Your task to perform on an android device: Open wifi settings Image 0: 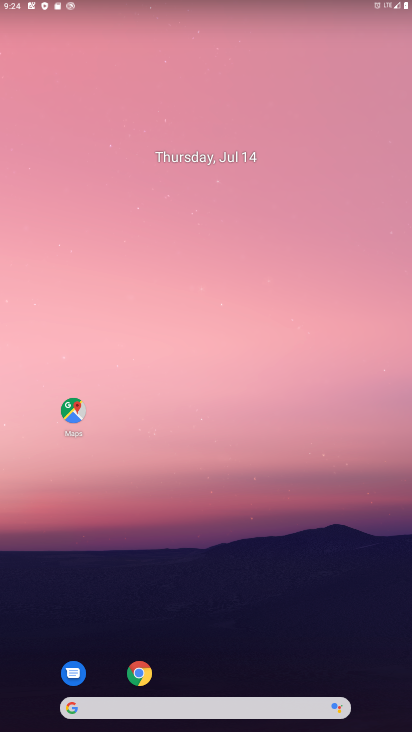
Step 0: drag from (241, 705) to (238, 168)
Your task to perform on an android device: Open wifi settings Image 1: 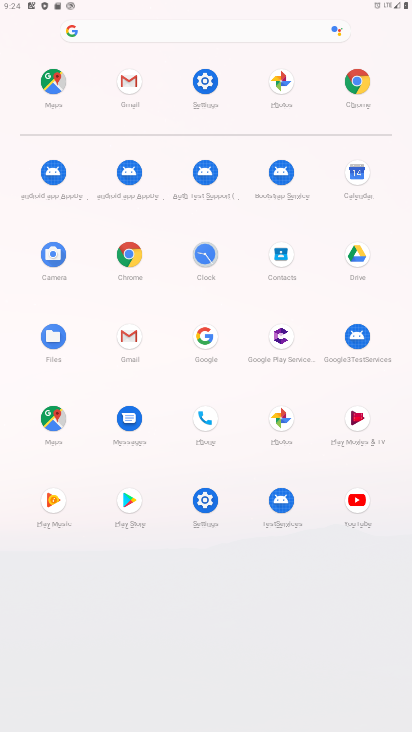
Step 1: click (204, 499)
Your task to perform on an android device: Open wifi settings Image 2: 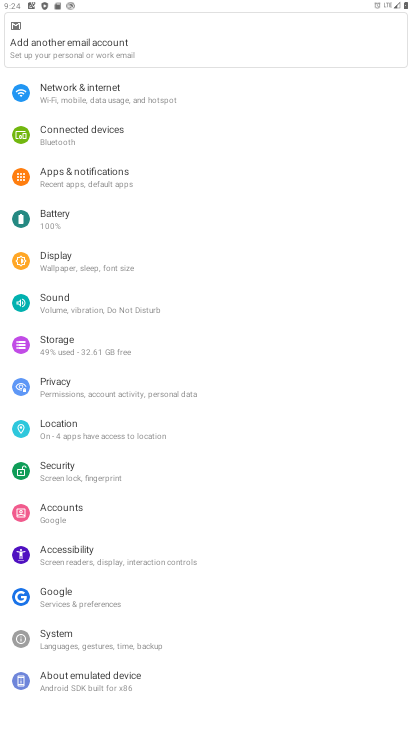
Step 2: click (136, 101)
Your task to perform on an android device: Open wifi settings Image 3: 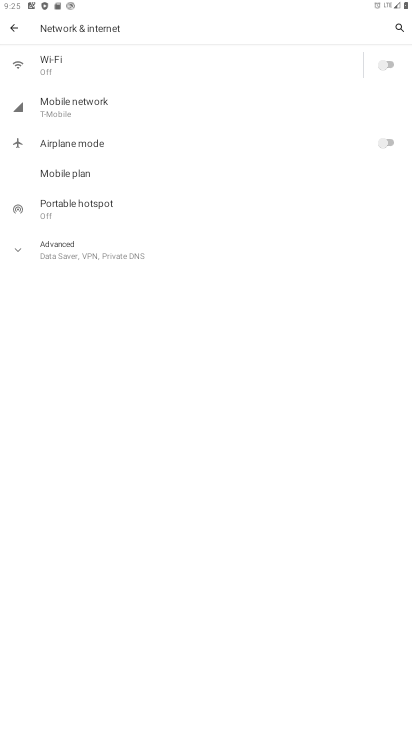
Step 3: click (90, 65)
Your task to perform on an android device: Open wifi settings Image 4: 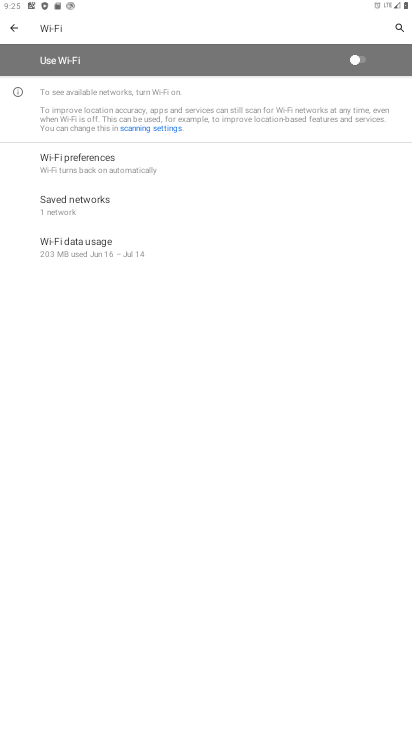
Step 4: task complete